Your task to perform on an android device: search for starred emails in the gmail app Image 0: 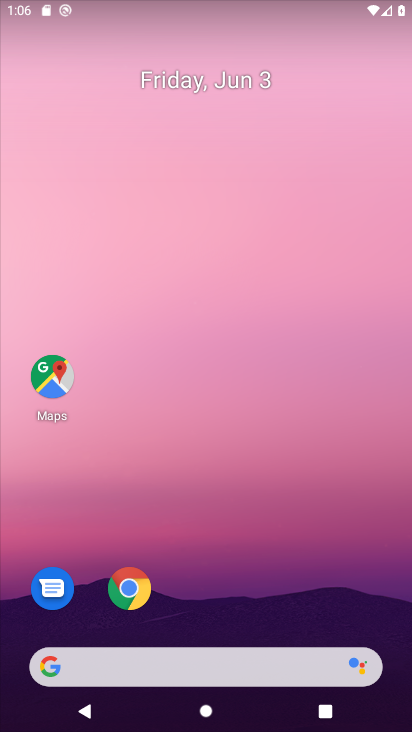
Step 0: drag from (224, 629) to (204, 171)
Your task to perform on an android device: search for starred emails in the gmail app Image 1: 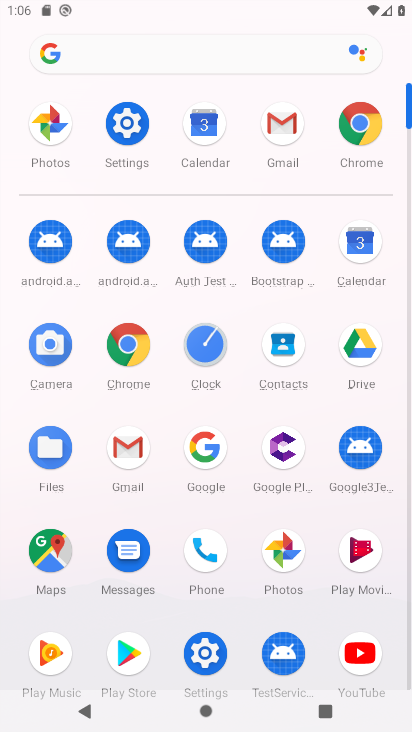
Step 1: click (288, 116)
Your task to perform on an android device: search for starred emails in the gmail app Image 2: 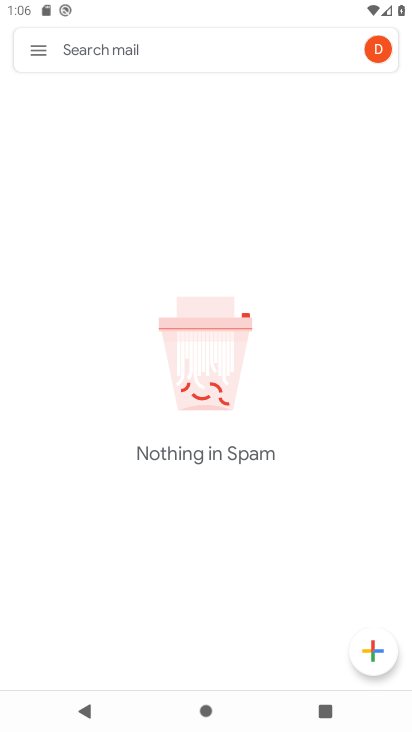
Step 2: click (32, 62)
Your task to perform on an android device: search for starred emails in the gmail app Image 3: 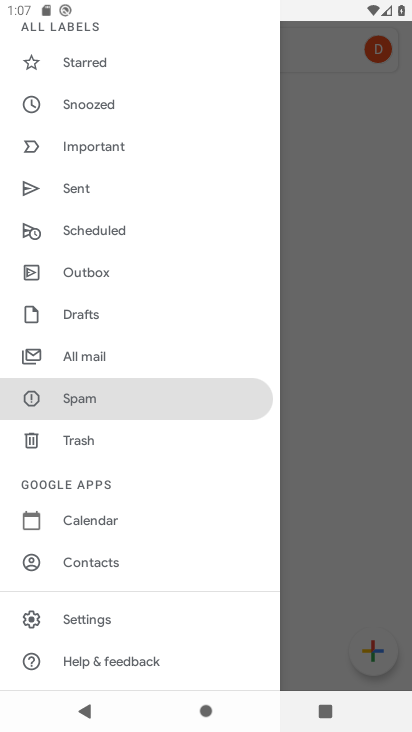
Step 3: drag from (126, 99) to (153, 505)
Your task to perform on an android device: search for starred emails in the gmail app Image 4: 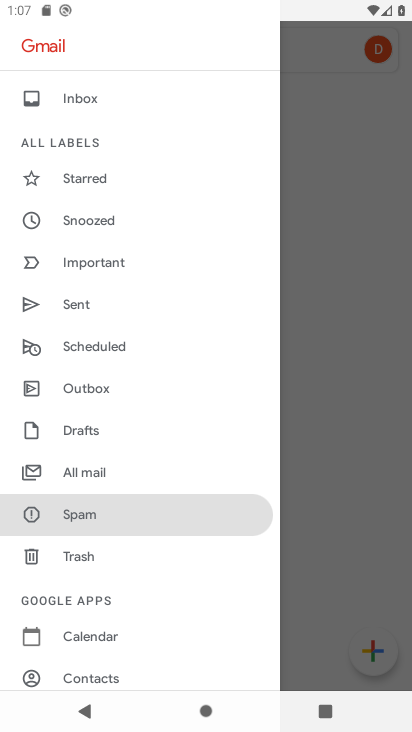
Step 4: click (136, 108)
Your task to perform on an android device: search for starred emails in the gmail app Image 5: 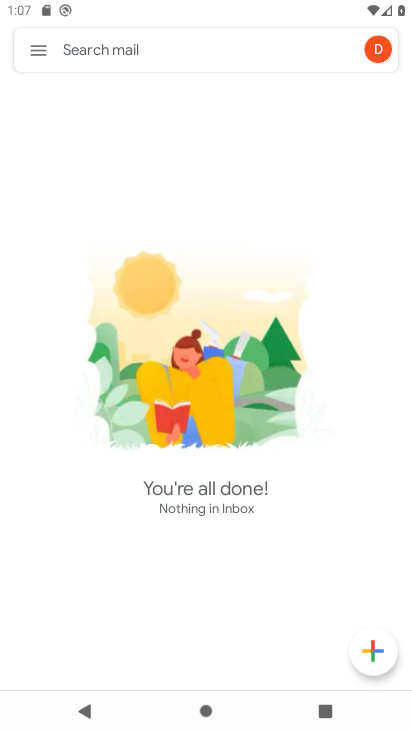
Step 5: click (39, 49)
Your task to perform on an android device: search for starred emails in the gmail app Image 6: 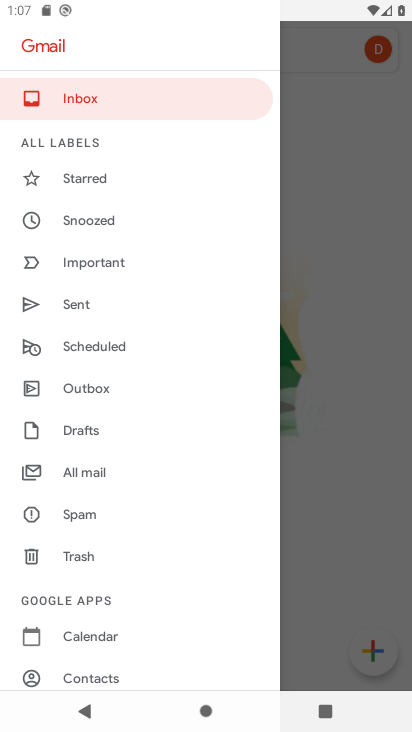
Step 6: click (85, 179)
Your task to perform on an android device: search for starred emails in the gmail app Image 7: 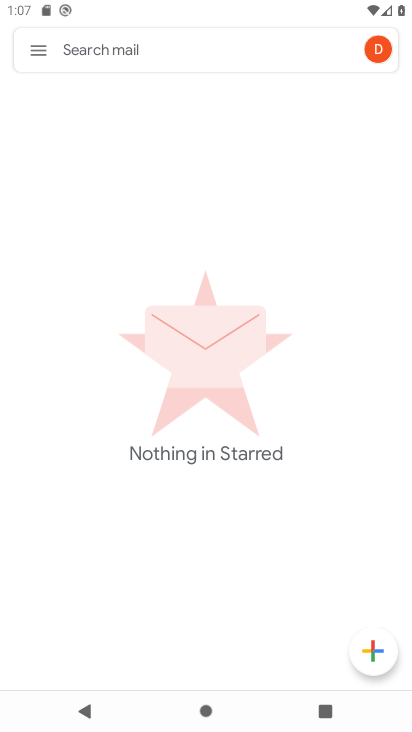
Step 7: task complete